Your task to perform on an android device: allow notifications from all sites in the chrome app Image 0: 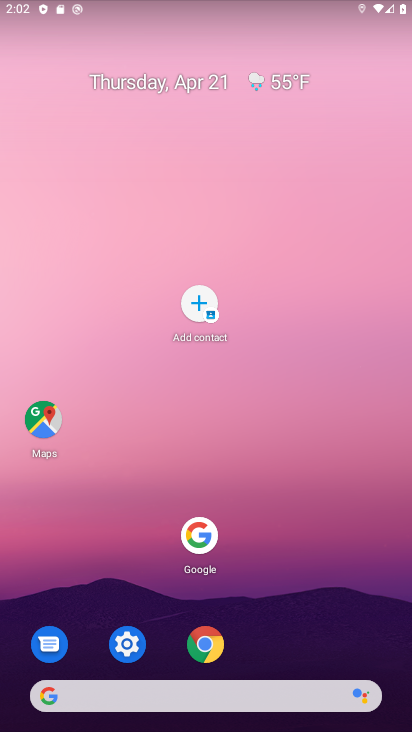
Step 0: click (109, 248)
Your task to perform on an android device: allow notifications from all sites in the chrome app Image 1: 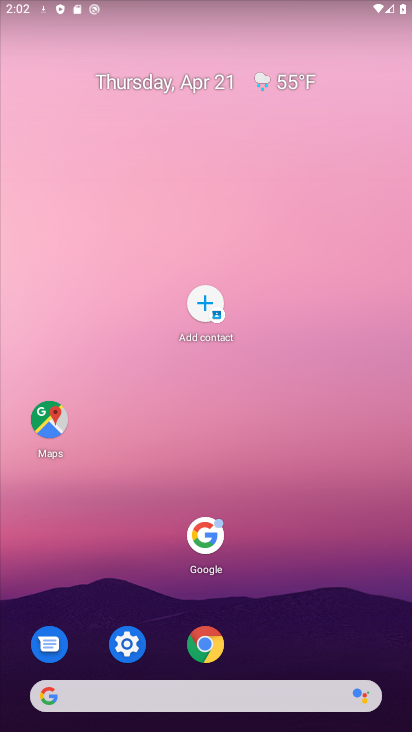
Step 1: click (176, 150)
Your task to perform on an android device: allow notifications from all sites in the chrome app Image 2: 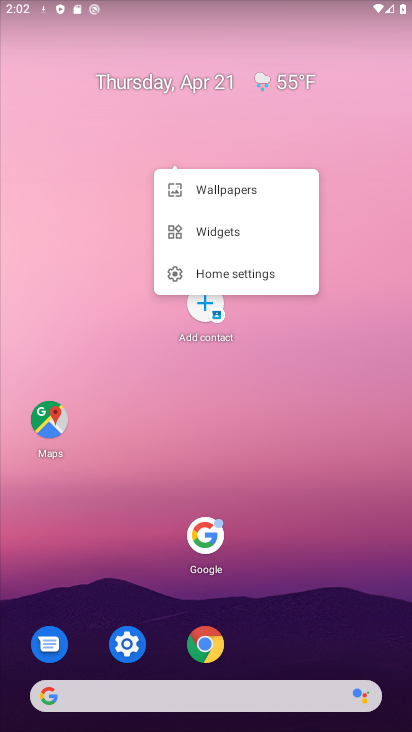
Step 2: drag from (237, 230) to (281, 165)
Your task to perform on an android device: allow notifications from all sites in the chrome app Image 3: 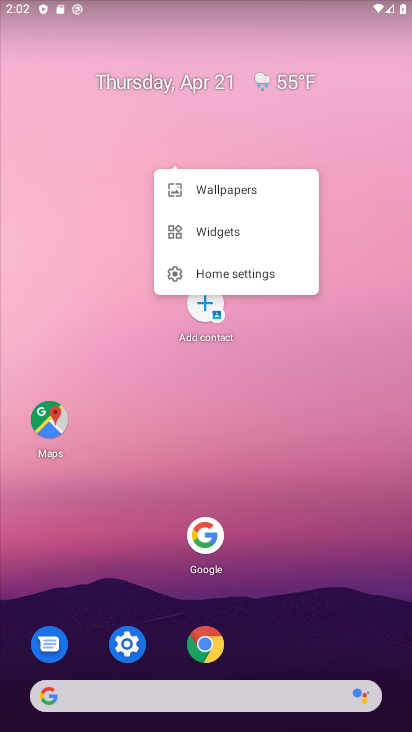
Step 3: drag from (250, 504) to (175, 130)
Your task to perform on an android device: allow notifications from all sites in the chrome app Image 4: 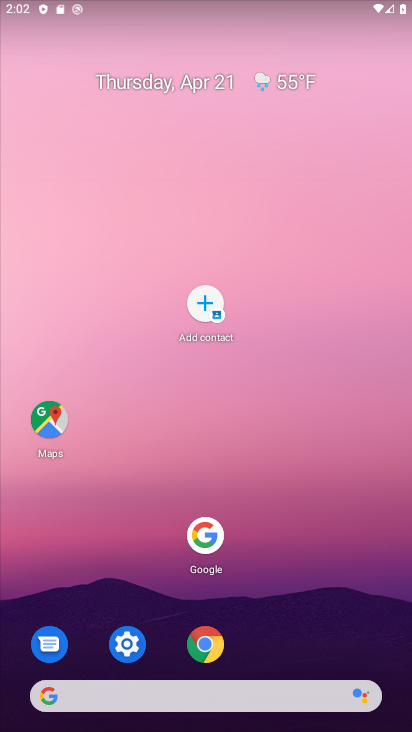
Step 4: drag from (117, 25) to (123, 91)
Your task to perform on an android device: allow notifications from all sites in the chrome app Image 5: 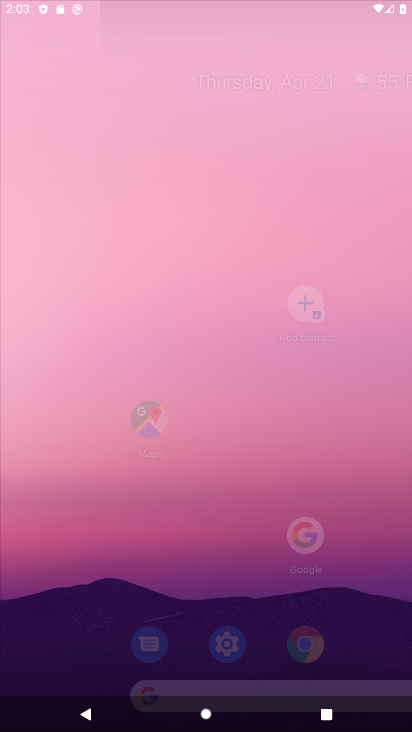
Step 5: click (257, 134)
Your task to perform on an android device: allow notifications from all sites in the chrome app Image 6: 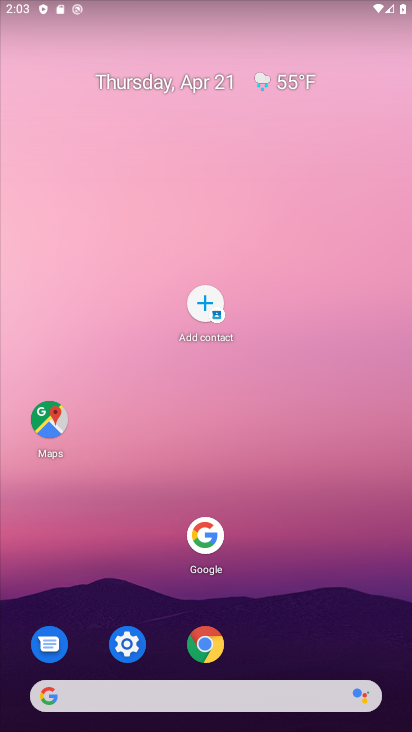
Step 6: drag from (360, 679) to (209, 156)
Your task to perform on an android device: allow notifications from all sites in the chrome app Image 7: 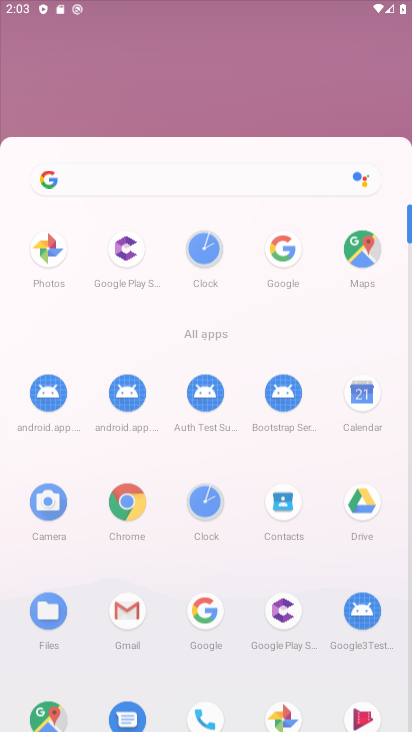
Step 7: drag from (286, 532) to (187, 204)
Your task to perform on an android device: allow notifications from all sites in the chrome app Image 8: 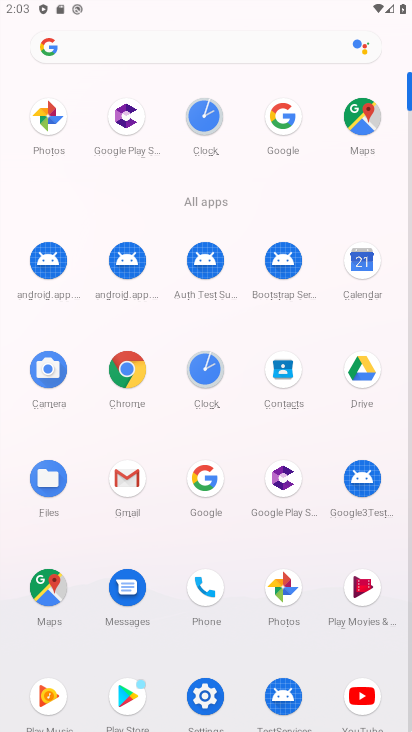
Step 8: click (132, 379)
Your task to perform on an android device: allow notifications from all sites in the chrome app Image 9: 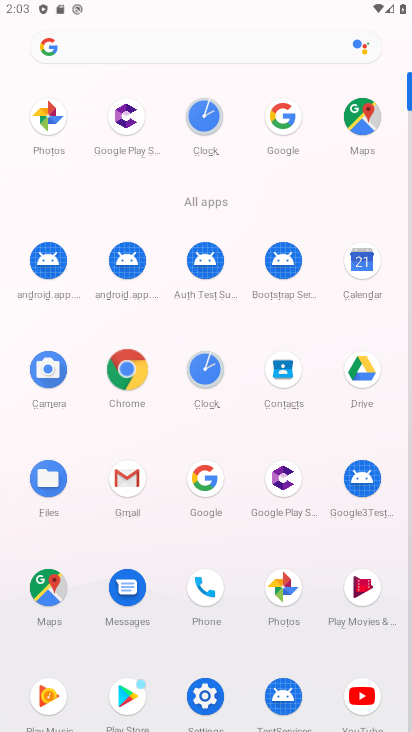
Step 9: click (132, 378)
Your task to perform on an android device: allow notifications from all sites in the chrome app Image 10: 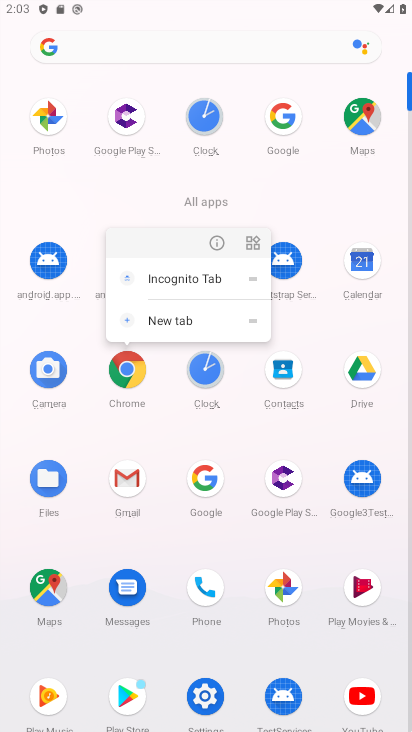
Step 10: click (126, 381)
Your task to perform on an android device: allow notifications from all sites in the chrome app Image 11: 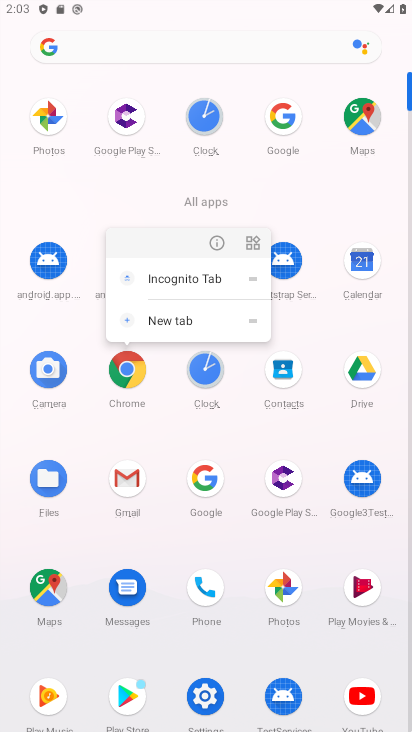
Step 11: click (129, 385)
Your task to perform on an android device: allow notifications from all sites in the chrome app Image 12: 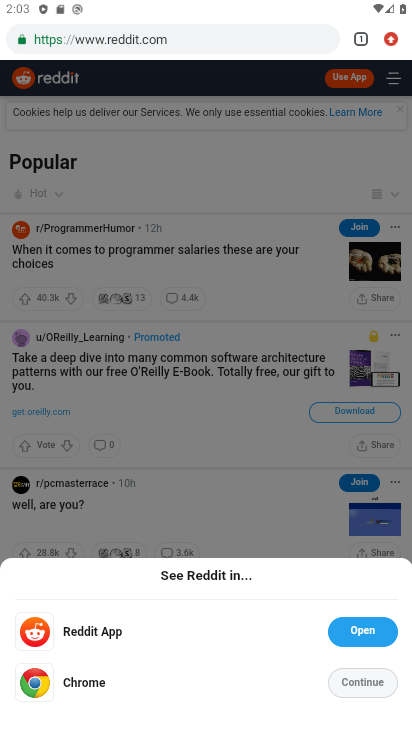
Step 12: click (248, 511)
Your task to perform on an android device: allow notifications from all sites in the chrome app Image 13: 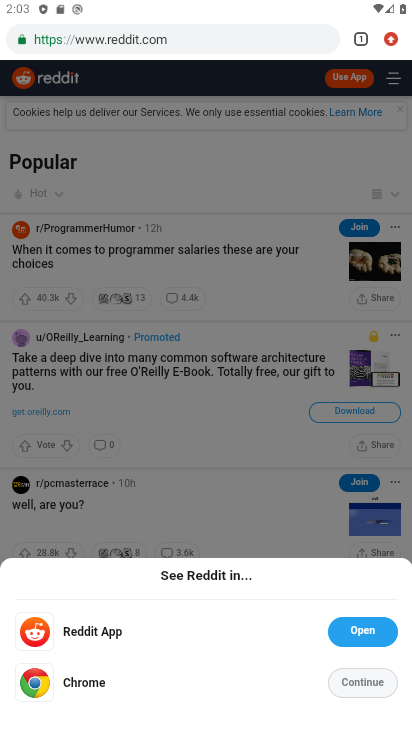
Step 13: click (246, 509)
Your task to perform on an android device: allow notifications from all sites in the chrome app Image 14: 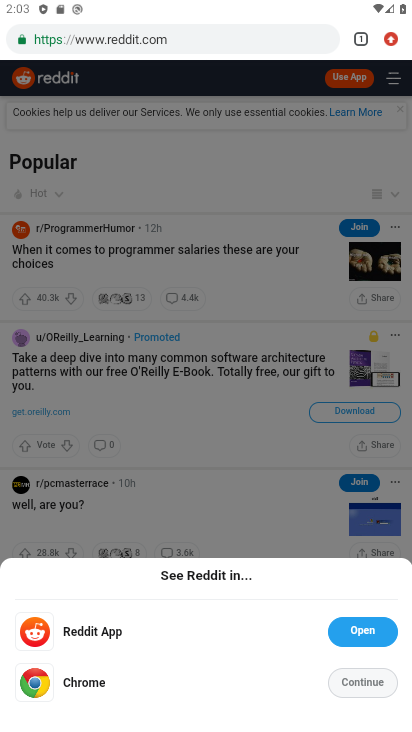
Step 14: click (245, 509)
Your task to perform on an android device: allow notifications from all sites in the chrome app Image 15: 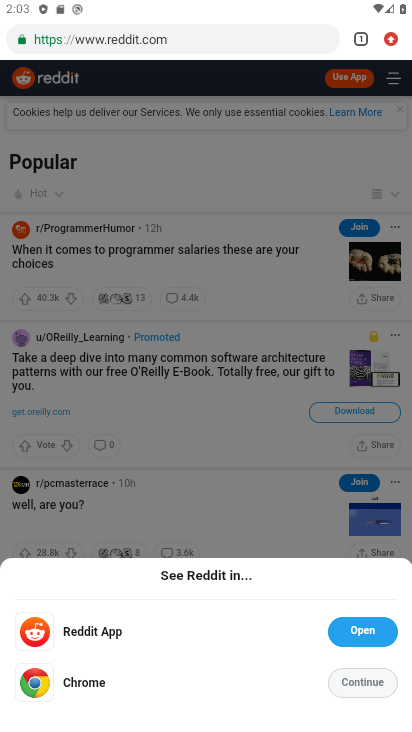
Step 15: click (239, 515)
Your task to perform on an android device: allow notifications from all sites in the chrome app Image 16: 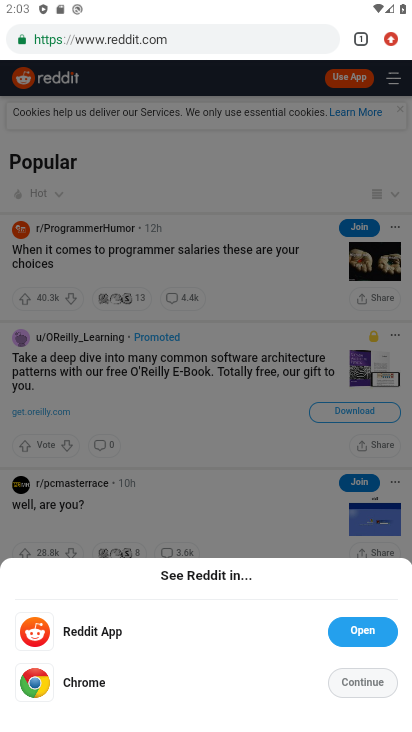
Step 16: press home button
Your task to perform on an android device: allow notifications from all sites in the chrome app Image 17: 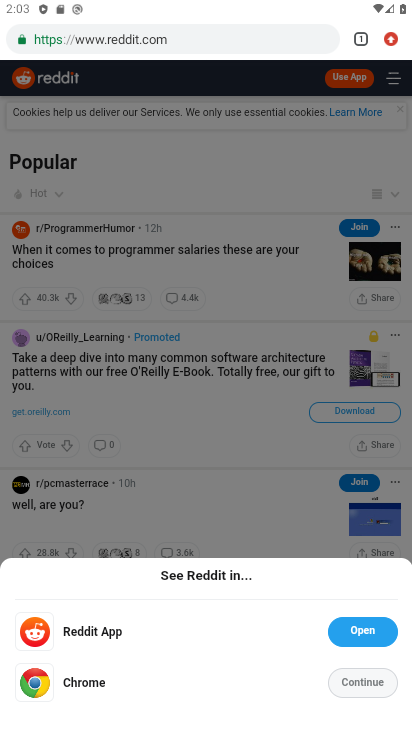
Step 17: press home button
Your task to perform on an android device: allow notifications from all sites in the chrome app Image 18: 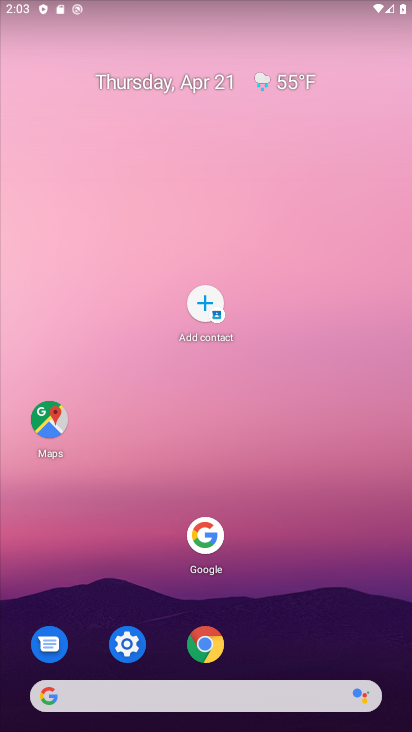
Step 18: drag from (283, 536) to (173, 66)
Your task to perform on an android device: allow notifications from all sites in the chrome app Image 19: 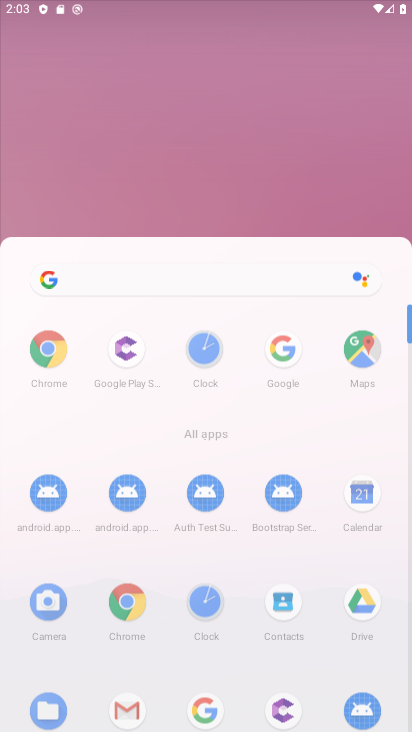
Step 19: drag from (209, 554) to (67, 145)
Your task to perform on an android device: allow notifications from all sites in the chrome app Image 20: 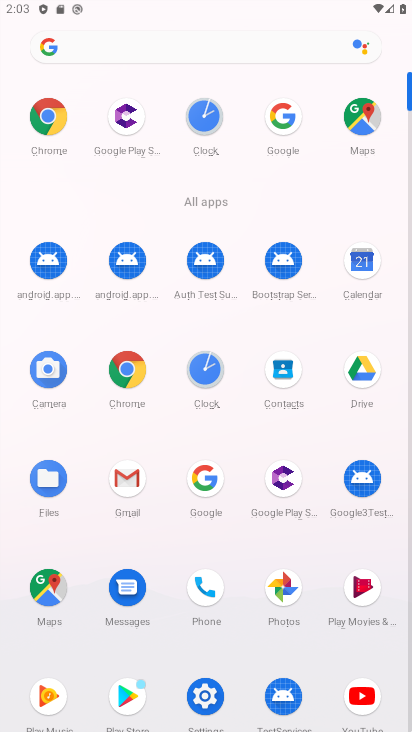
Step 20: click (124, 366)
Your task to perform on an android device: allow notifications from all sites in the chrome app Image 21: 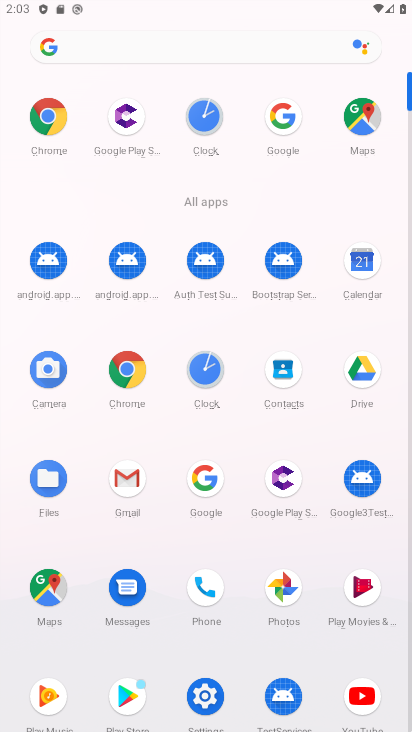
Step 21: click (124, 366)
Your task to perform on an android device: allow notifications from all sites in the chrome app Image 22: 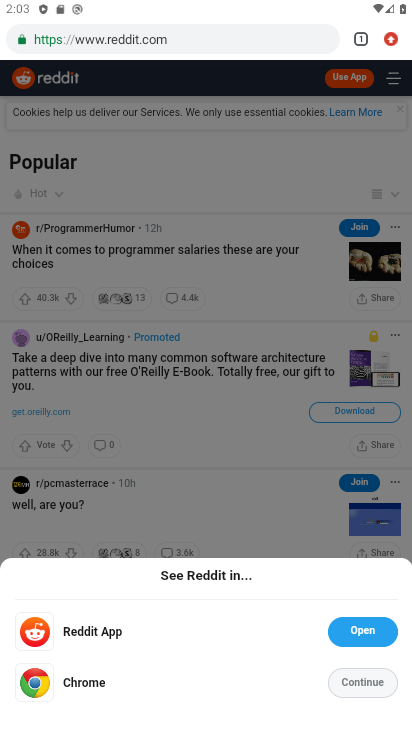
Step 22: drag from (386, 40) to (242, 510)
Your task to perform on an android device: allow notifications from all sites in the chrome app Image 23: 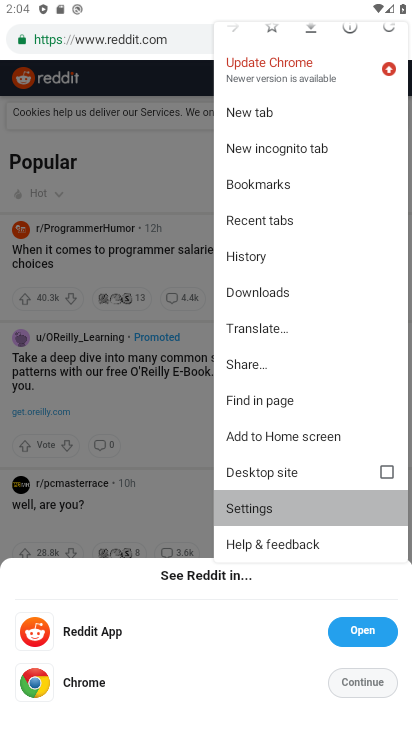
Step 23: click (242, 510)
Your task to perform on an android device: allow notifications from all sites in the chrome app Image 24: 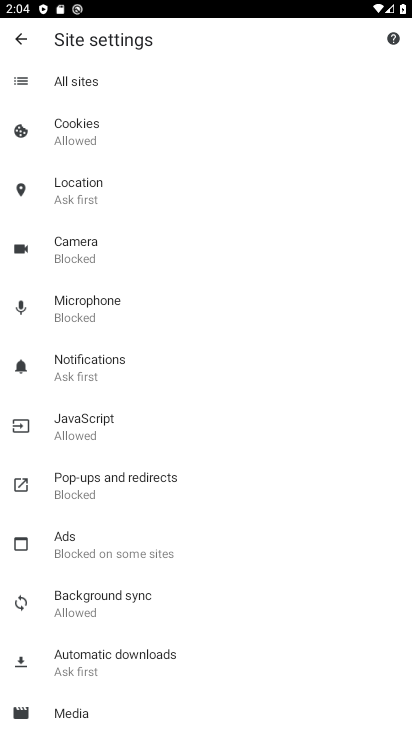
Step 24: click (72, 364)
Your task to perform on an android device: allow notifications from all sites in the chrome app Image 25: 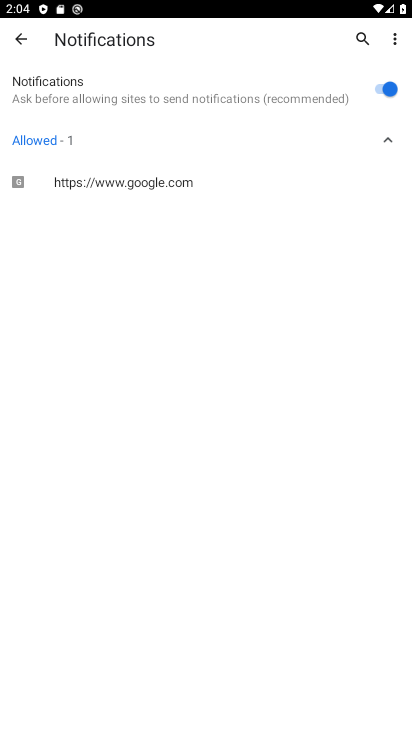
Step 25: task complete